Your task to perform on an android device: add a contact Image 0: 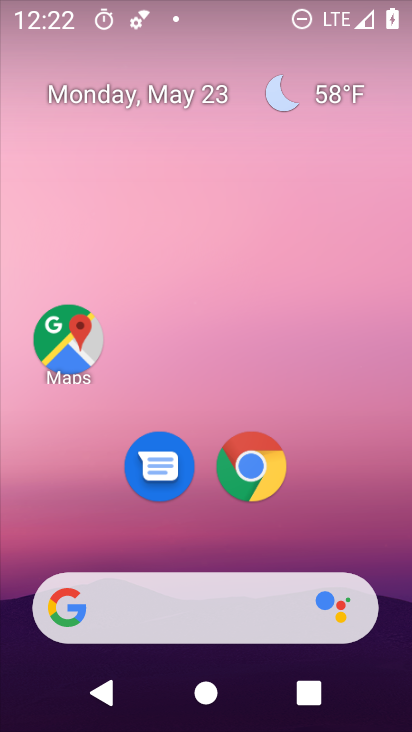
Step 0: drag from (326, 430) to (381, 6)
Your task to perform on an android device: add a contact Image 1: 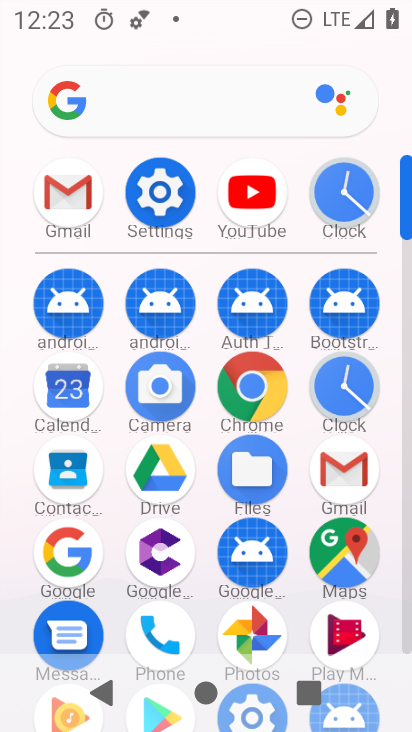
Step 1: click (192, 446)
Your task to perform on an android device: add a contact Image 2: 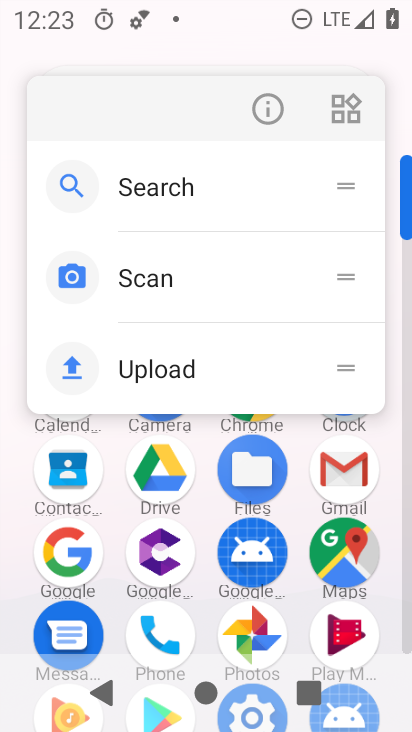
Step 2: click (72, 465)
Your task to perform on an android device: add a contact Image 3: 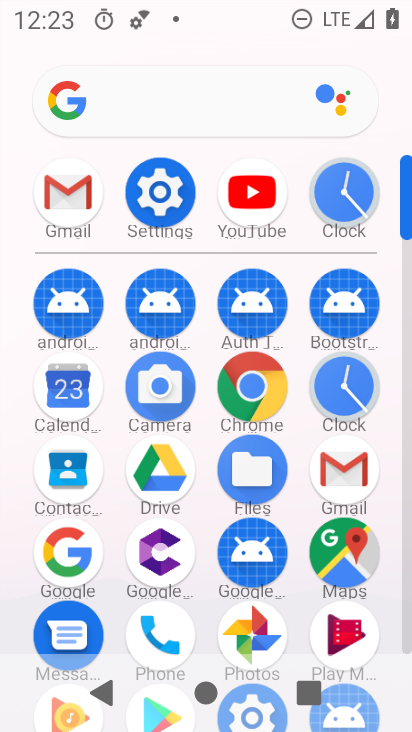
Step 3: click (70, 469)
Your task to perform on an android device: add a contact Image 4: 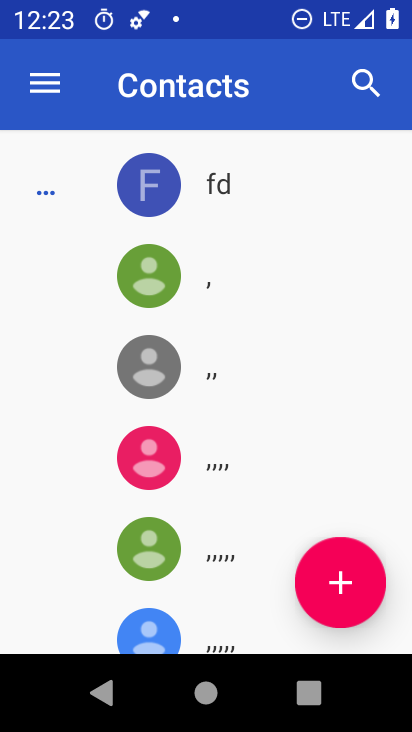
Step 4: click (346, 581)
Your task to perform on an android device: add a contact Image 5: 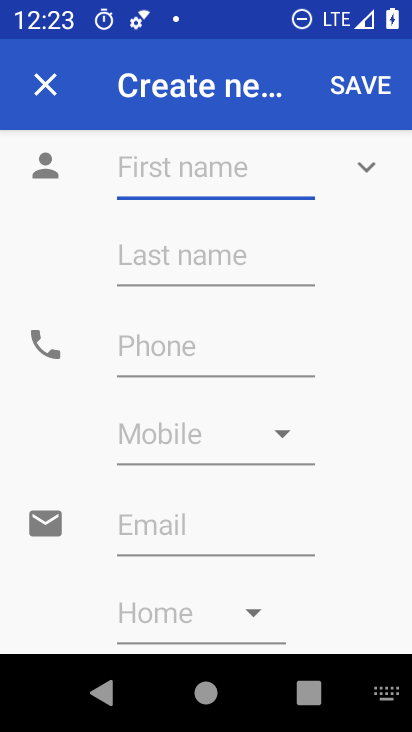
Step 5: type "hjshhj"
Your task to perform on an android device: add a contact Image 6: 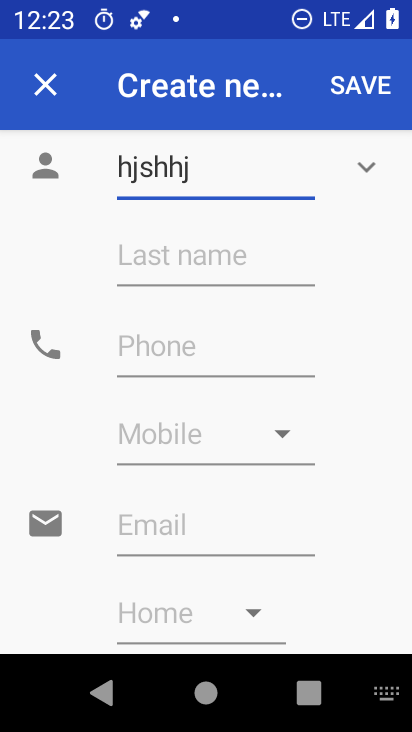
Step 6: click (354, 86)
Your task to perform on an android device: add a contact Image 7: 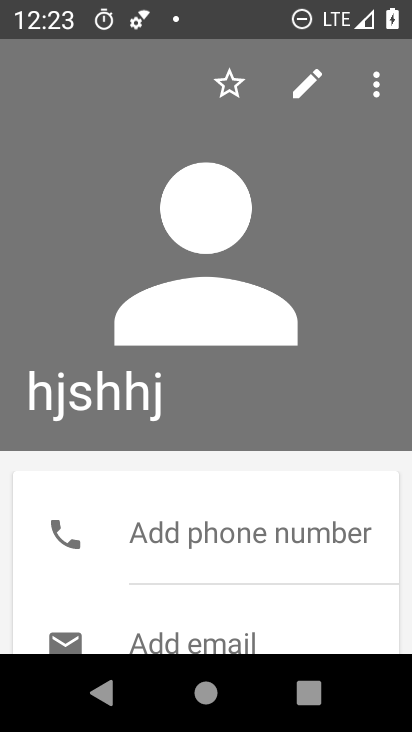
Step 7: task complete